Your task to perform on an android device: see sites visited before in the chrome app Image 0: 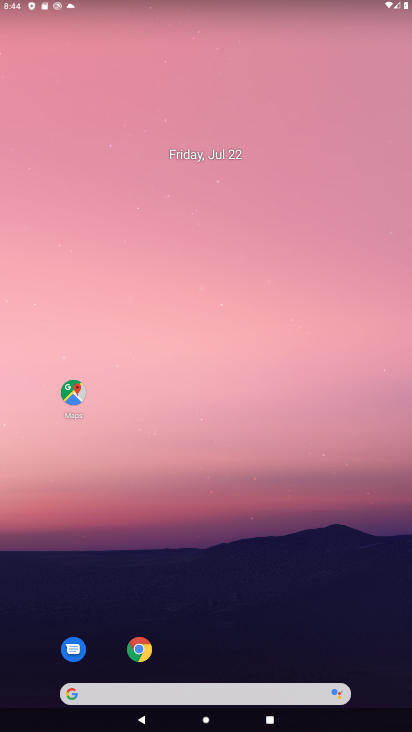
Step 0: click (132, 646)
Your task to perform on an android device: see sites visited before in the chrome app Image 1: 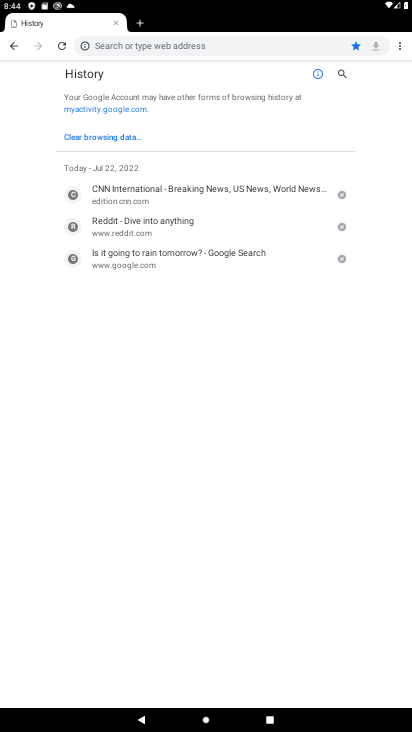
Step 1: task complete